Your task to perform on an android device: Open internet settings Image 0: 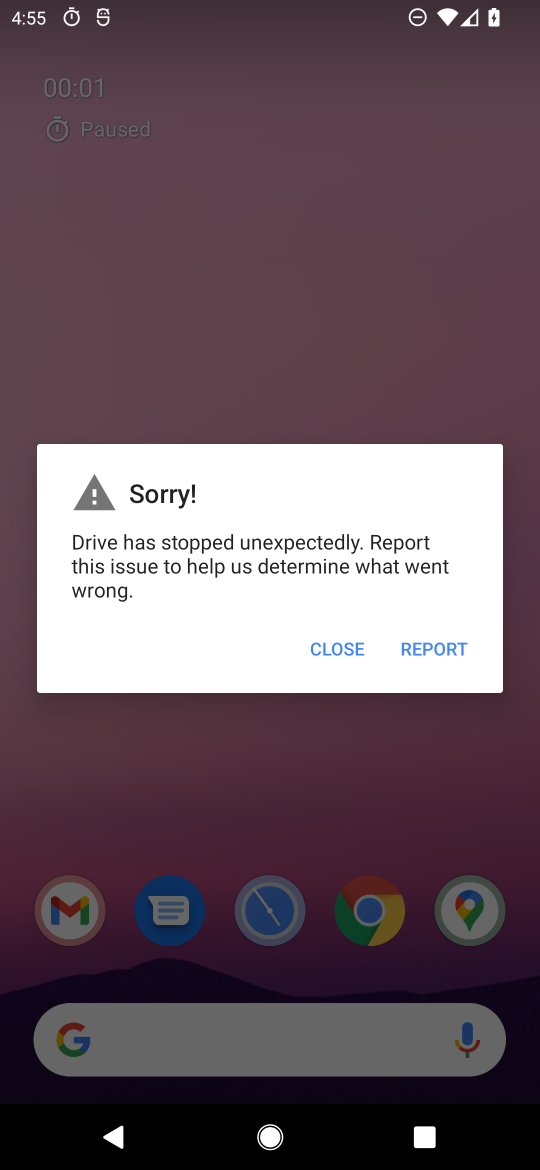
Step 0: press home button
Your task to perform on an android device: Open internet settings Image 1: 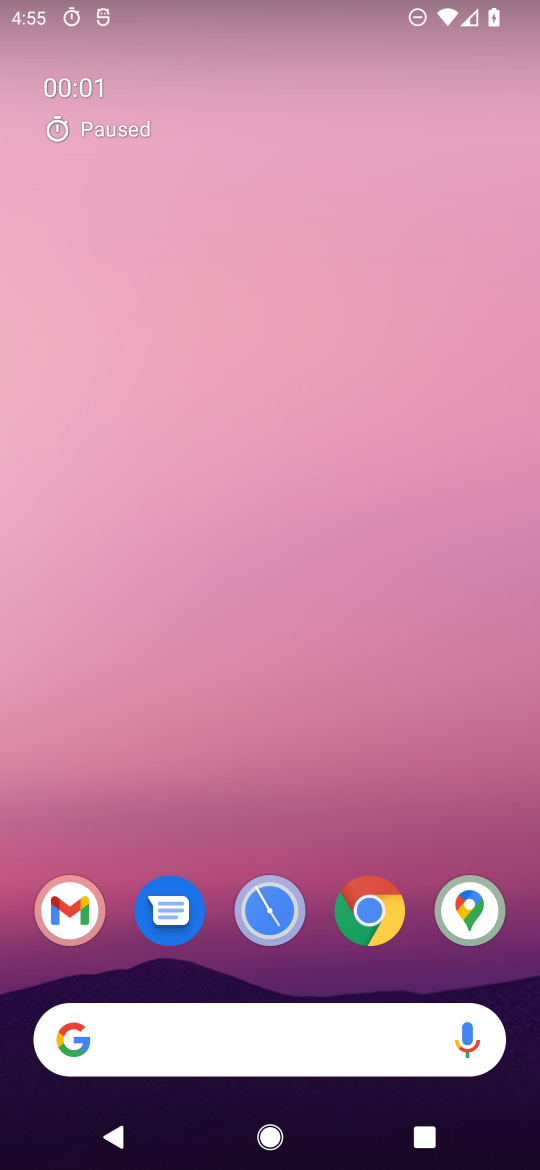
Step 1: drag from (102, 986) to (402, 18)
Your task to perform on an android device: Open internet settings Image 2: 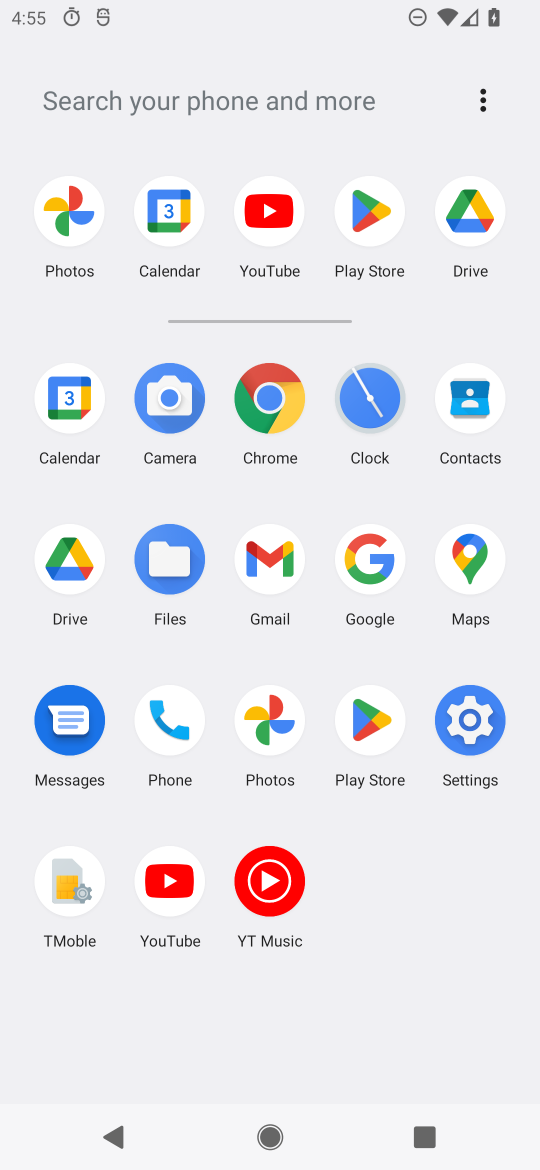
Step 2: click (448, 731)
Your task to perform on an android device: Open internet settings Image 3: 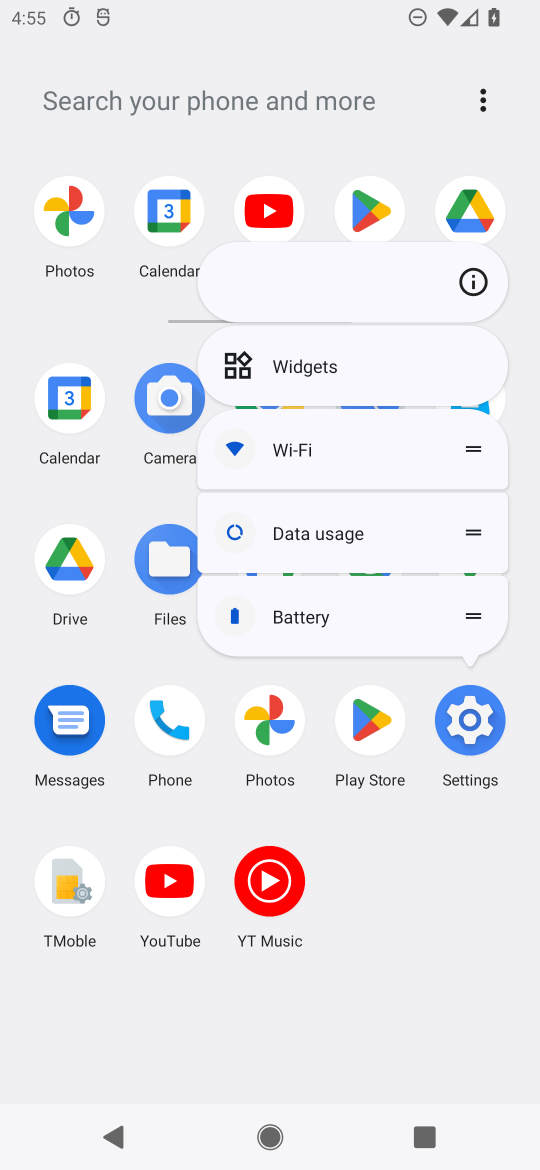
Step 3: click (470, 715)
Your task to perform on an android device: Open internet settings Image 4: 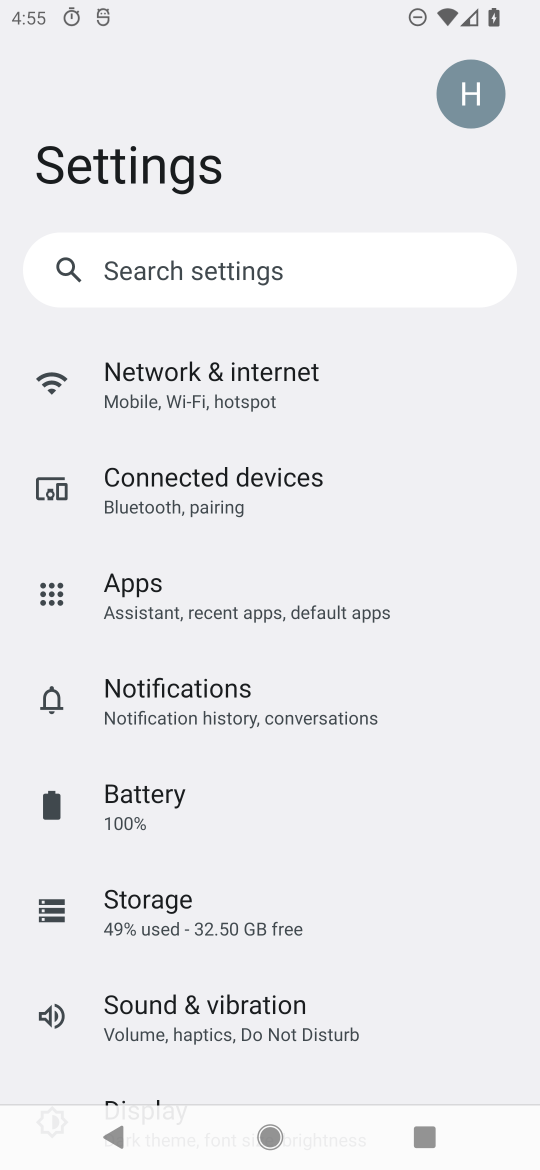
Step 4: click (258, 389)
Your task to perform on an android device: Open internet settings Image 5: 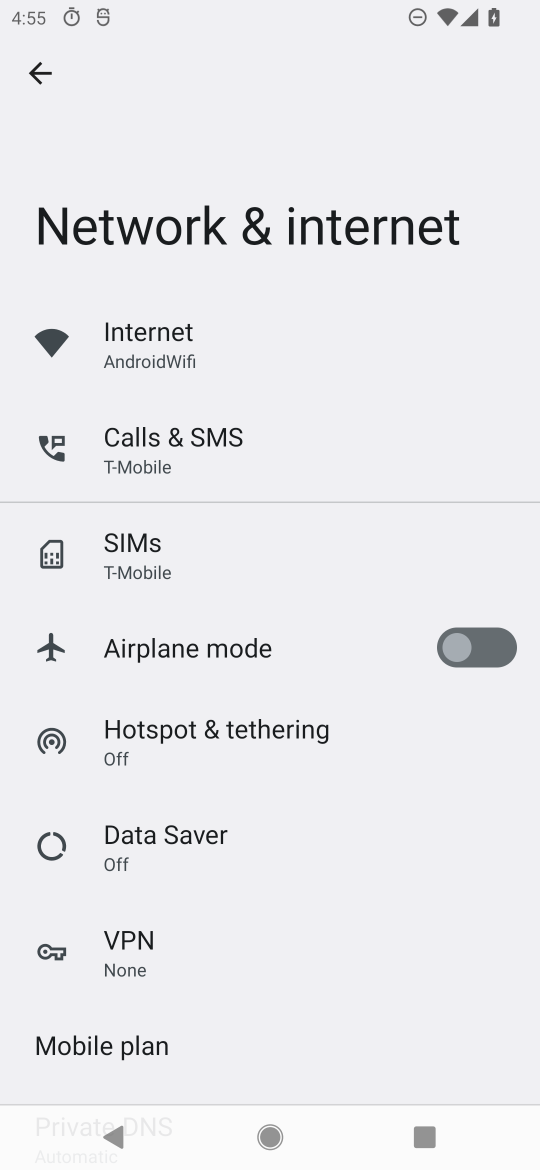
Step 5: click (192, 359)
Your task to perform on an android device: Open internet settings Image 6: 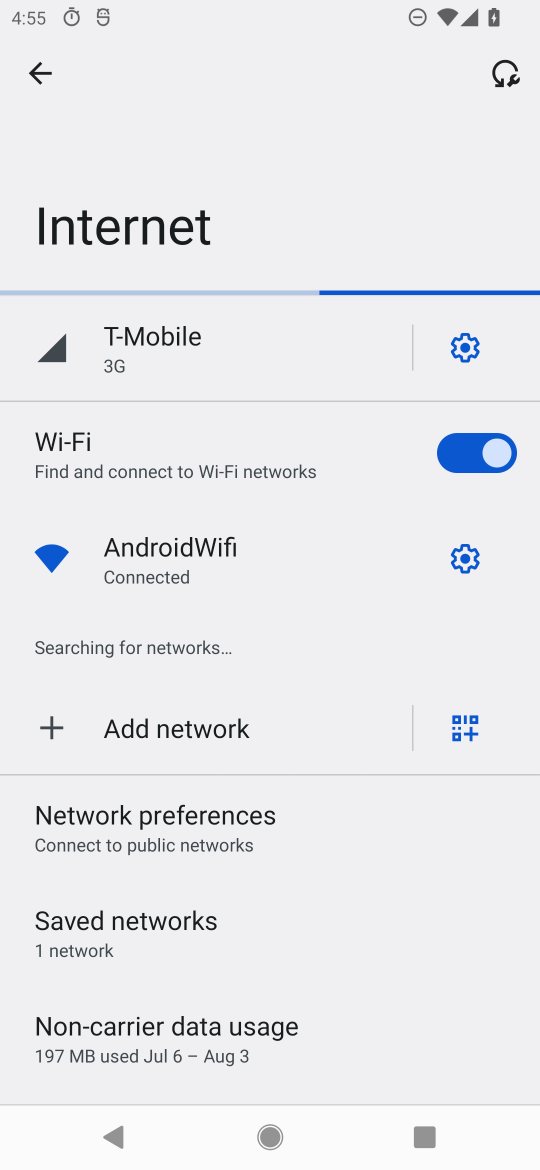
Step 6: task complete